Your task to perform on an android device: Search for Mexican restaurants on Maps Image 0: 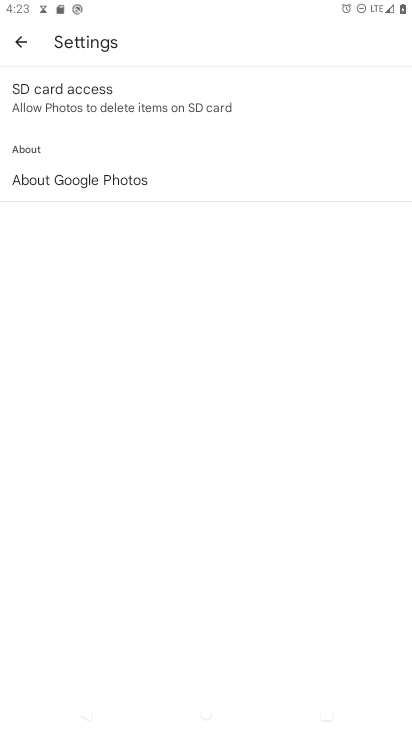
Step 0: press home button
Your task to perform on an android device: Search for Mexican restaurants on Maps Image 1: 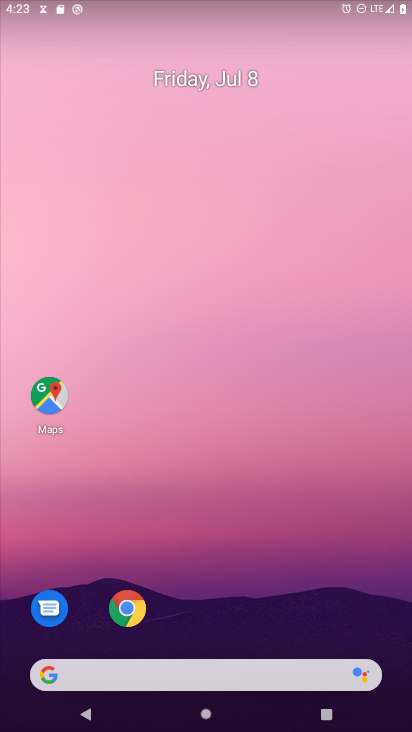
Step 1: drag from (263, 650) to (307, 59)
Your task to perform on an android device: Search for Mexican restaurants on Maps Image 2: 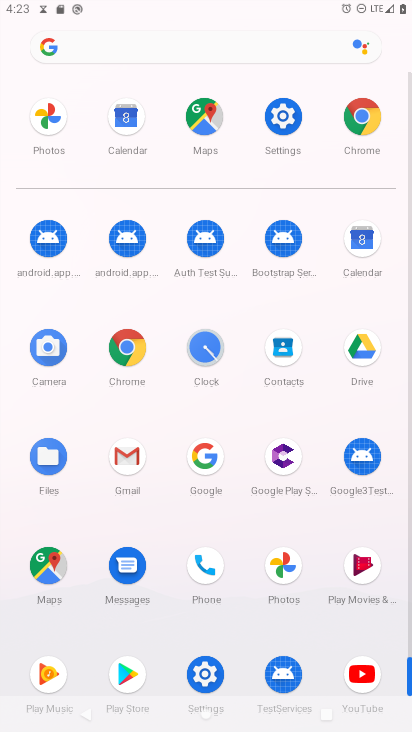
Step 2: click (54, 577)
Your task to perform on an android device: Search for Mexican restaurants on Maps Image 3: 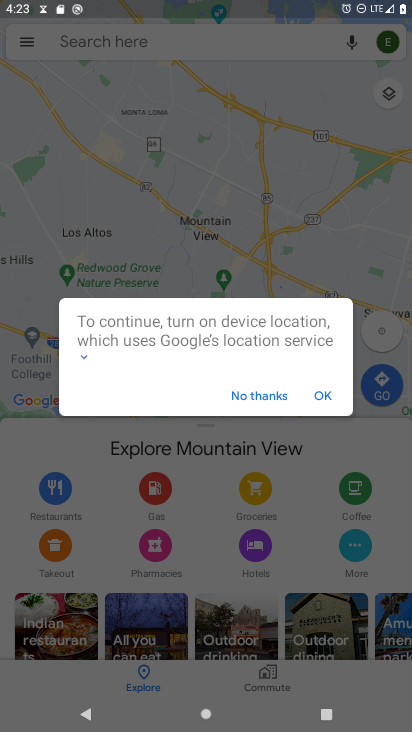
Step 3: click (238, 396)
Your task to perform on an android device: Search for Mexican restaurants on Maps Image 4: 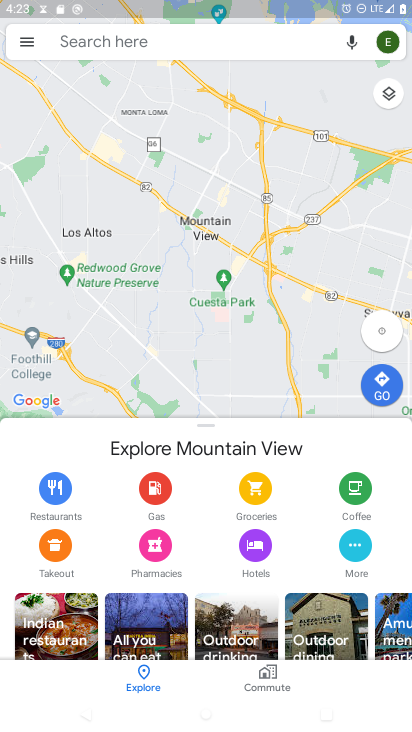
Step 4: click (255, 38)
Your task to perform on an android device: Search for Mexican restaurants on Maps Image 5: 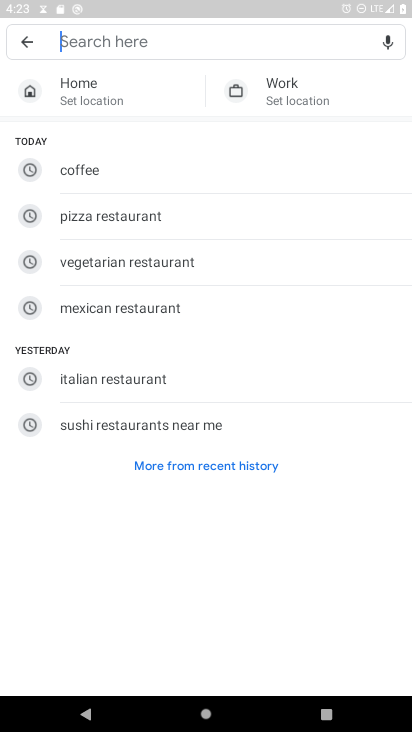
Step 5: click (118, 315)
Your task to perform on an android device: Search for Mexican restaurants on Maps Image 6: 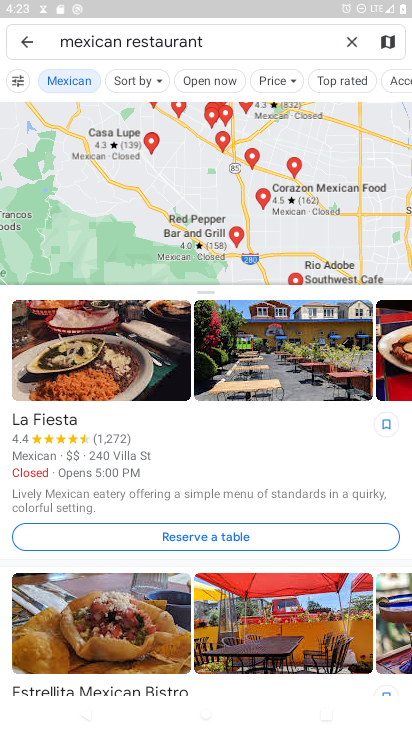
Step 6: task complete